Your task to perform on an android device: check google app version Image 0: 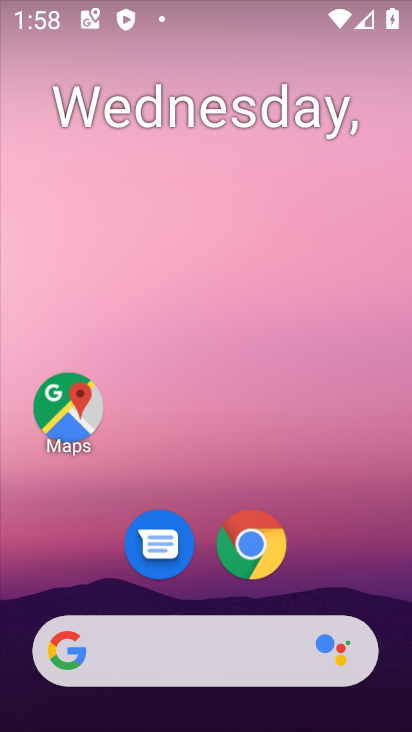
Step 0: click (264, 539)
Your task to perform on an android device: check google app version Image 1: 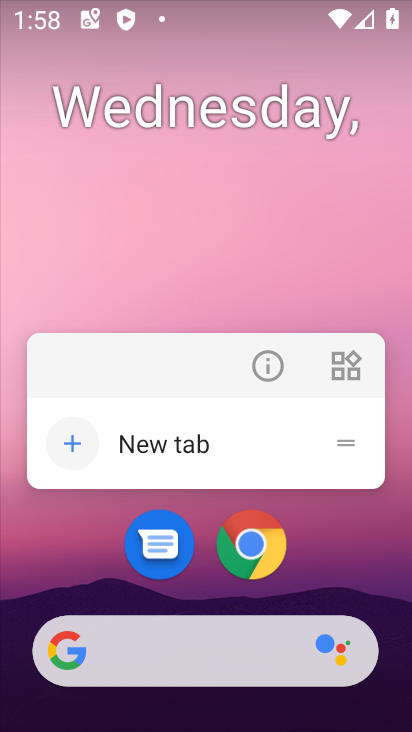
Step 1: click (269, 384)
Your task to perform on an android device: check google app version Image 2: 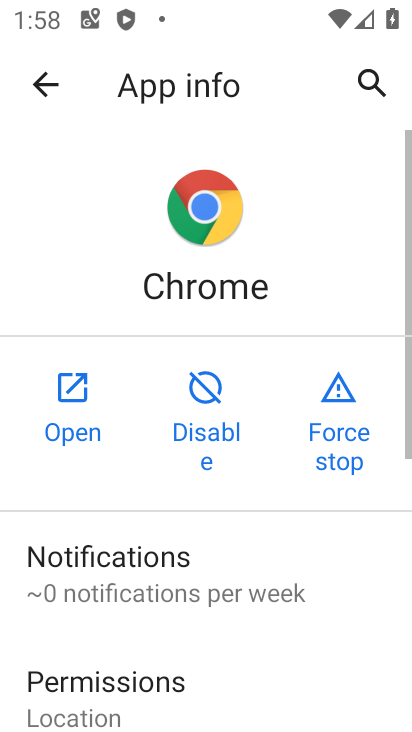
Step 2: drag from (146, 555) to (339, 48)
Your task to perform on an android device: check google app version Image 3: 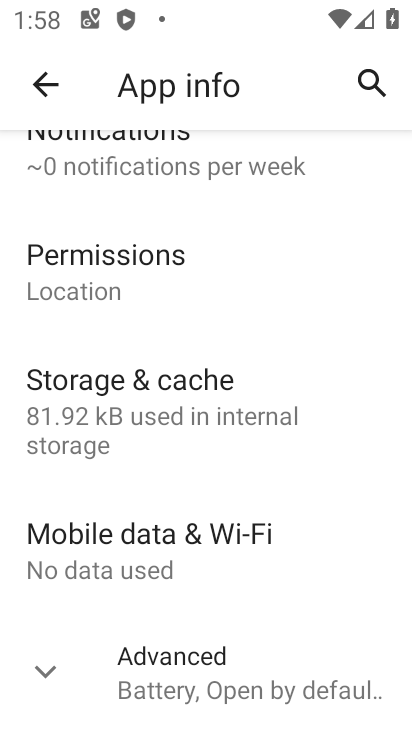
Step 3: click (237, 672)
Your task to perform on an android device: check google app version Image 4: 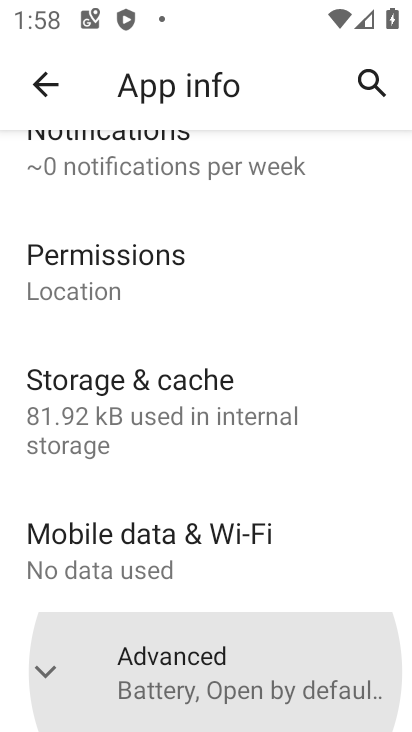
Step 4: task complete